Your task to perform on an android device: change keyboard looks Image 0: 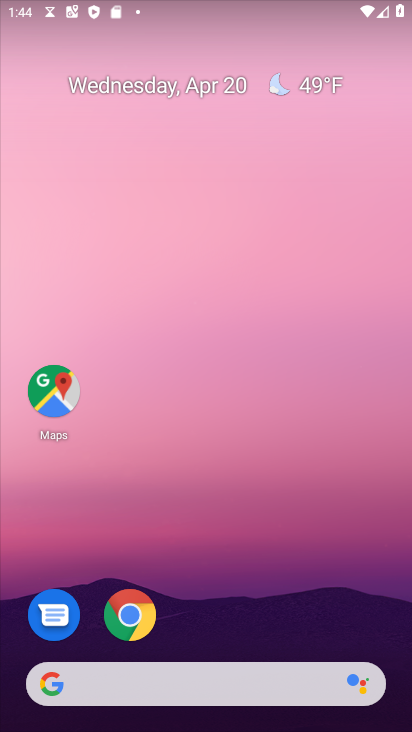
Step 0: drag from (21, 657) to (221, 306)
Your task to perform on an android device: change keyboard looks Image 1: 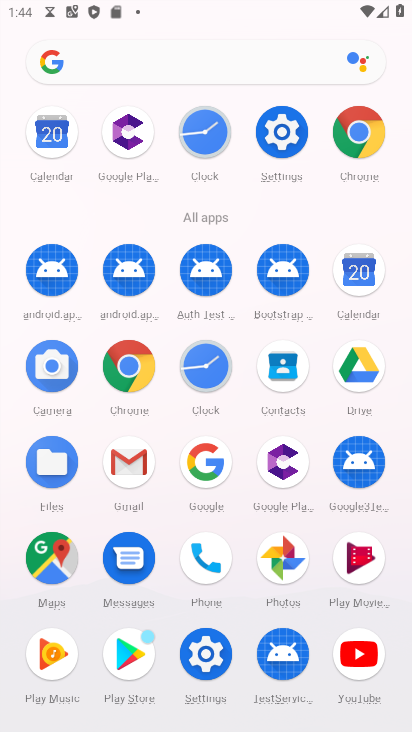
Step 1: click (270, 133)
Your task to perform on an android device: change keyboard looks Image 2: 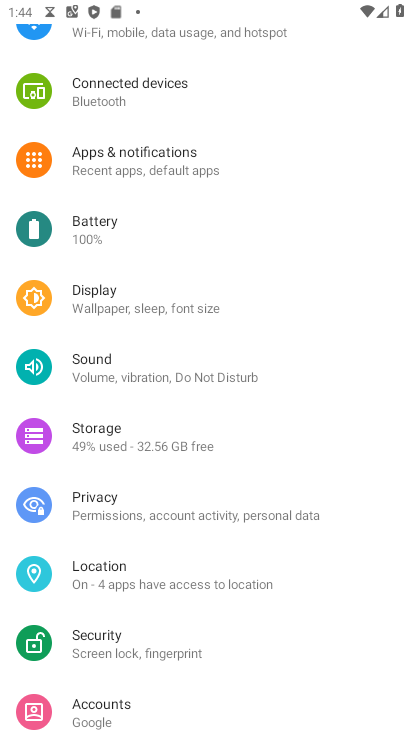
Step 2: drag from (164, 648) to (267, 256)
Your task to perform on an android device: change keyboard looks Image 3: 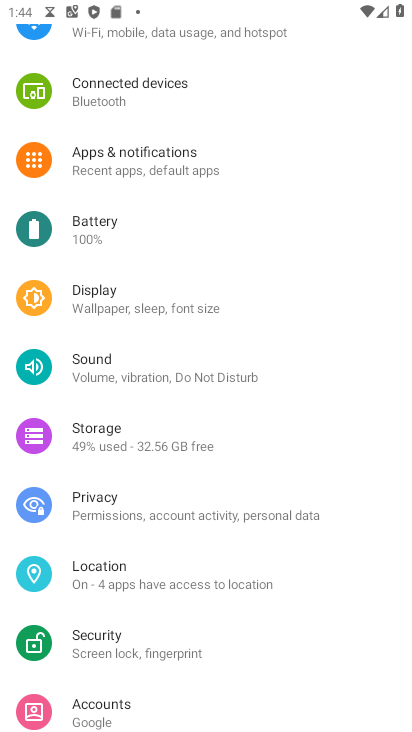
Step 3: drag from (39, 597) to (162, 262)
Your task to perform on an android device: change keyboard looks Image 4: 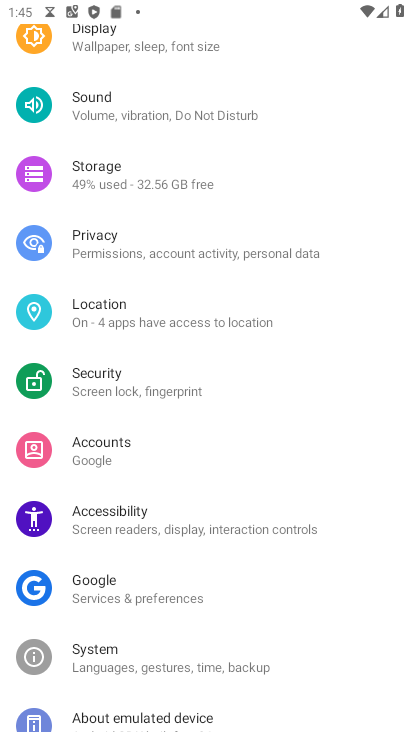
Step 4: drag from (143, 612) to (202, 204)
Your task to perform on an android device: change keyboard looks Image 5: 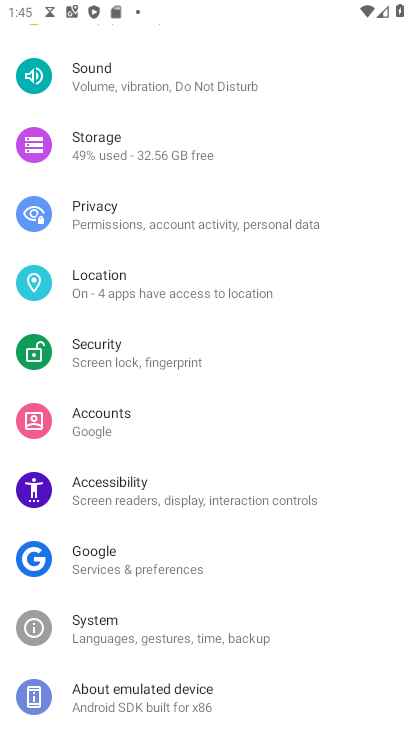
Step 5: drag from (236, 221) to (174, 590)
Your task to perform on an android device: change keyboard looks Image 6: 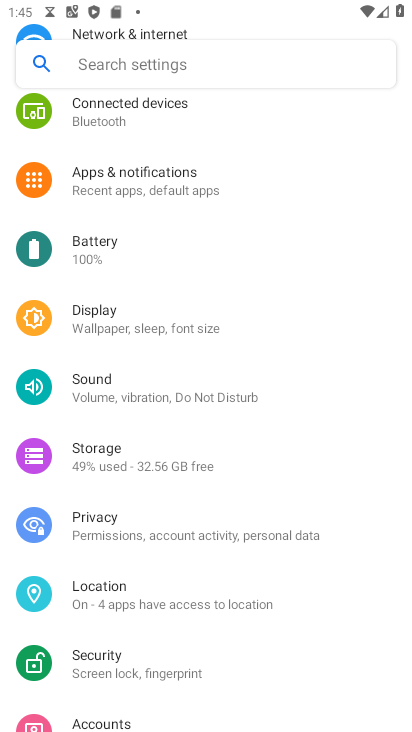
Step 6: drag from (170, 130) to (135, 479)
Your task to perform on an android device: change keyboard looks Image 7: 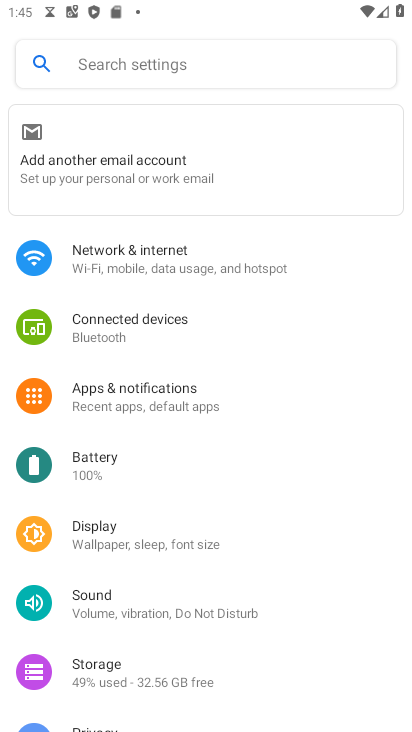
Step 7: click (129, 271)
Your task to perform on an android device: change keyboard looks Image 8: 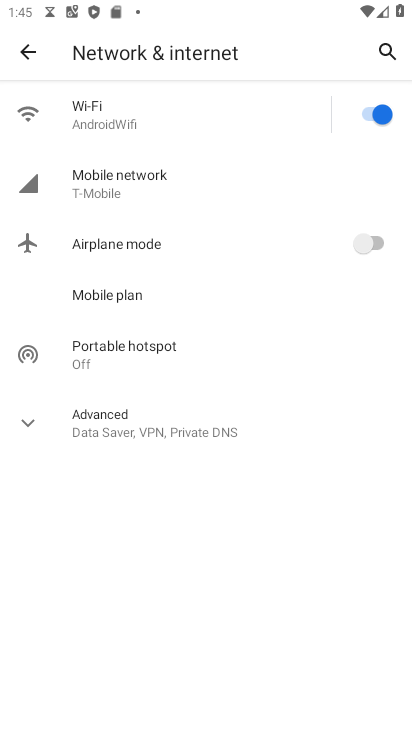
Step 8: press back button
Your task to perform on an android device: change keyboard looks Image 9: 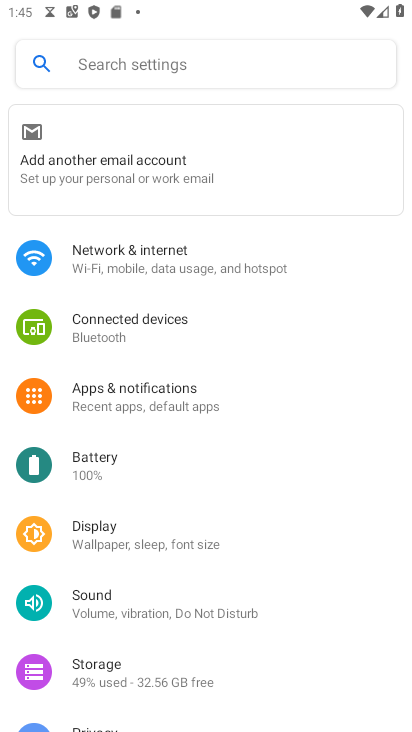
Step 9: drag from (152, 629) to (275, 266)
Your task to perform on an android device: change keyboard looks Image 10: 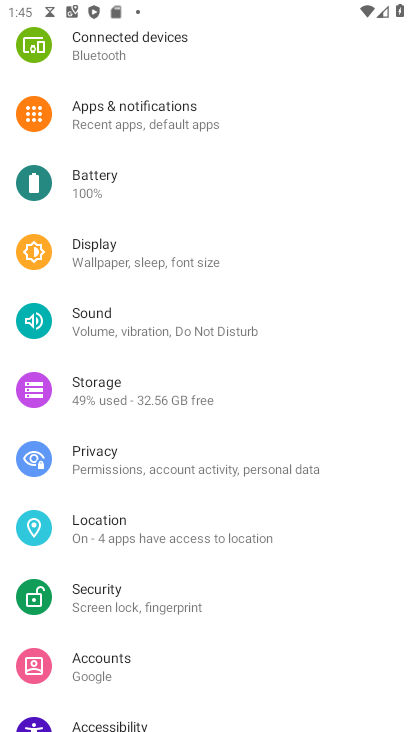
Step 10: drag from (263, 584) to (320, 278)
Your task to perform on an android device: change keyboard looks Image 11: 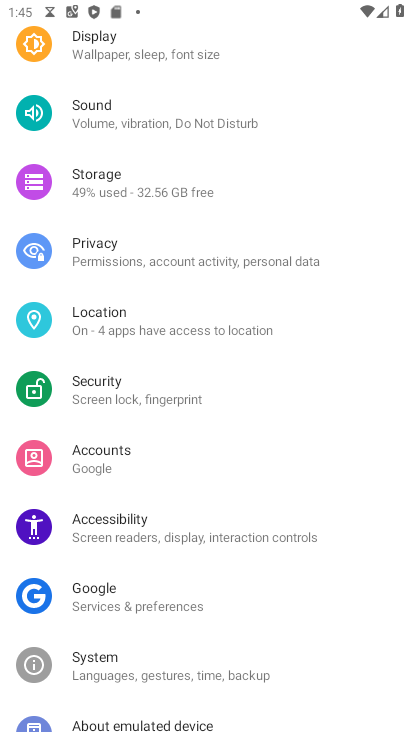
Step 11: drag from (176, 548) to (260, 185)
Your task to perform on an android device: change keyboard looks Image 12: 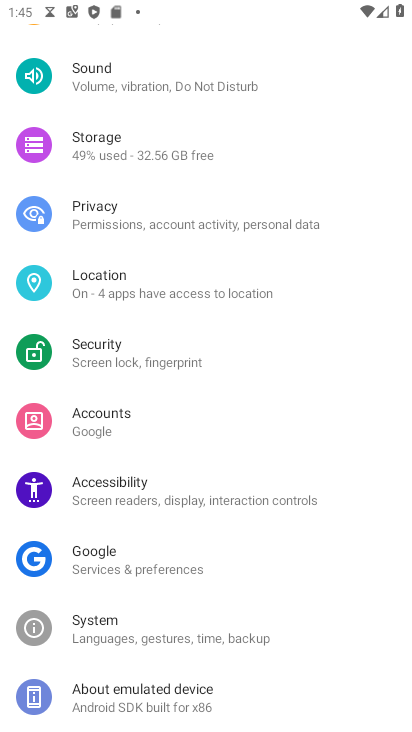
Step 12: click (105, 622)
Your task to perform on an android device: change keyboard looks Image 13: 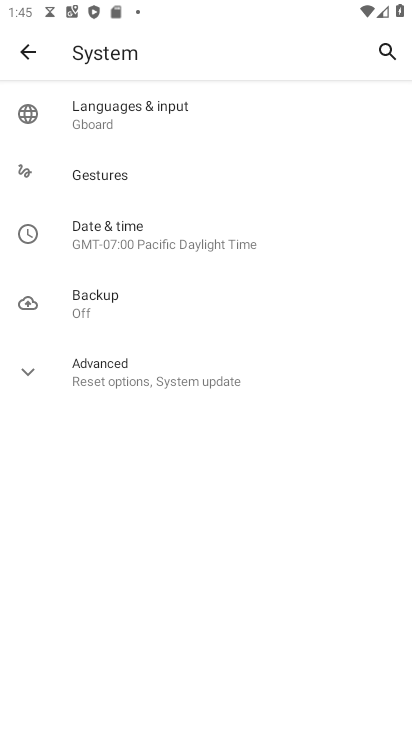
Step 13: click (141, 114)
Your task to perform on an android device: change keyboard looks Image 14: 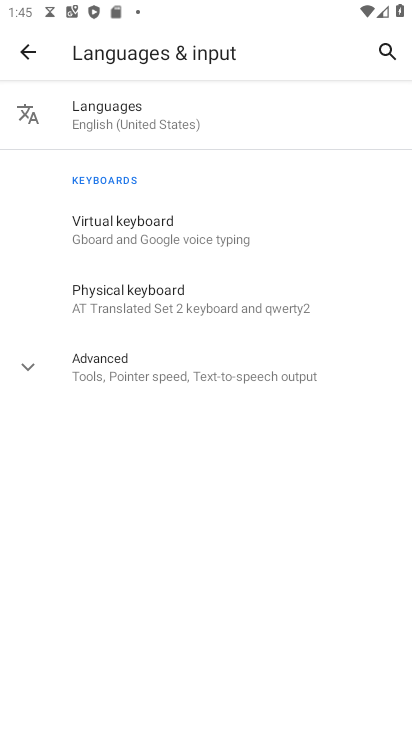
Step 14: click (140, 204)
Your task to perform on an android device: change keyboard looks Image 15: 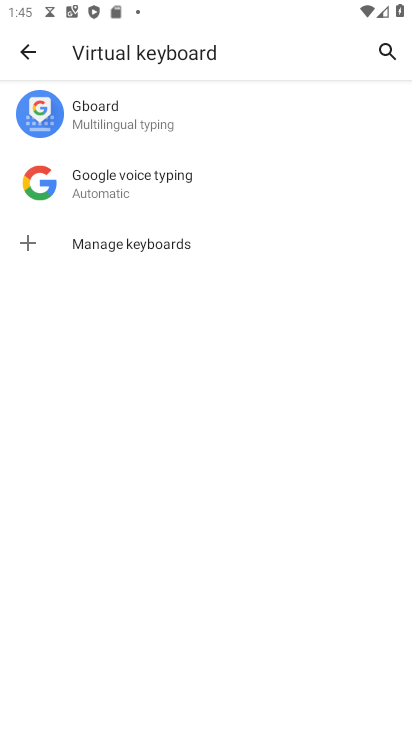
Step 15: click (247, 126)
Your task to perform on an android device: change keyboard looks Image 16: 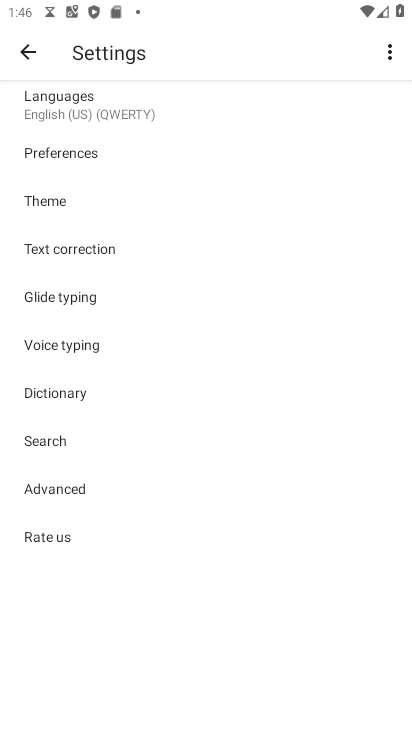
Step 16: task complete